Your task to perform on an android device: Open Yahoo.com Image 0: 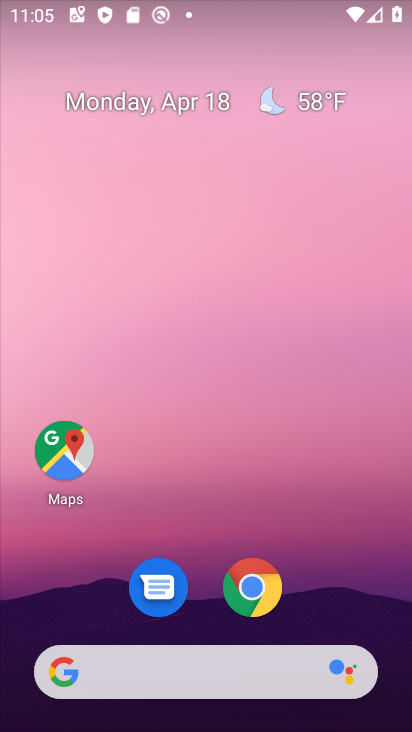
Step 0: click (249, 586)
Your task to perform on an android device: Open Yahoo.com Image 1: 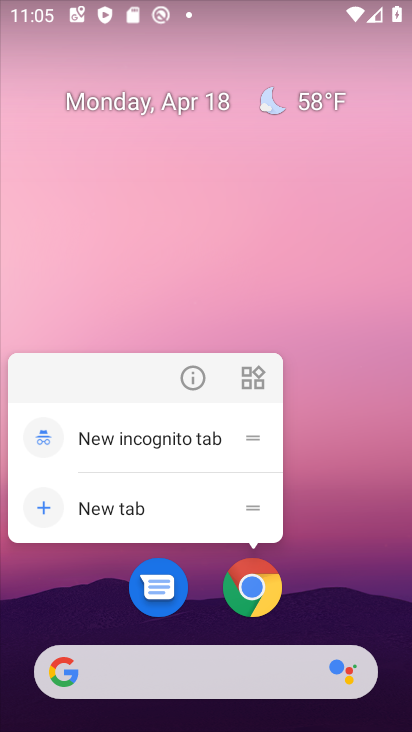
Step 1: click (249, 601)
Your task to perform on an android device: Open Yahoo.com Image 2: 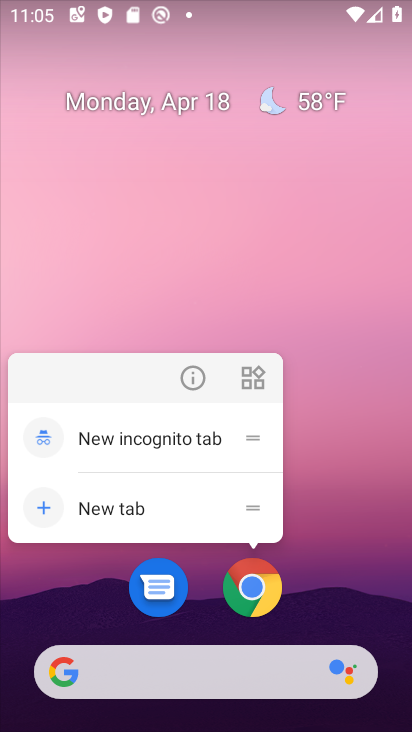
Step 2: click (249, 599)
Your task to perform on an android device: Open Yahoo.com Image 3: 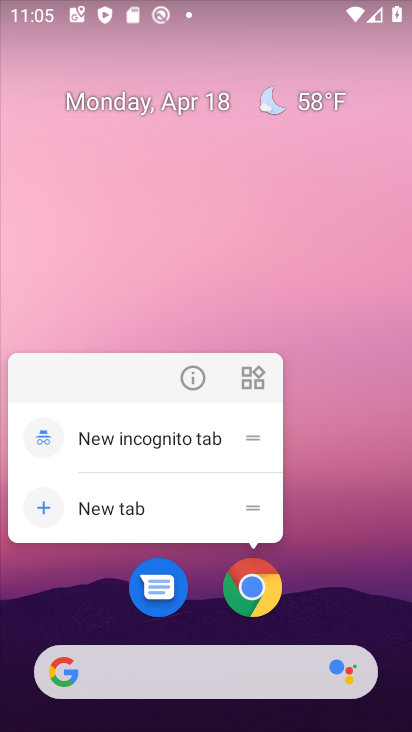
Step 3: click (266, 596)
Your task to perform on an android device: Open Yahoo.com Image 4: 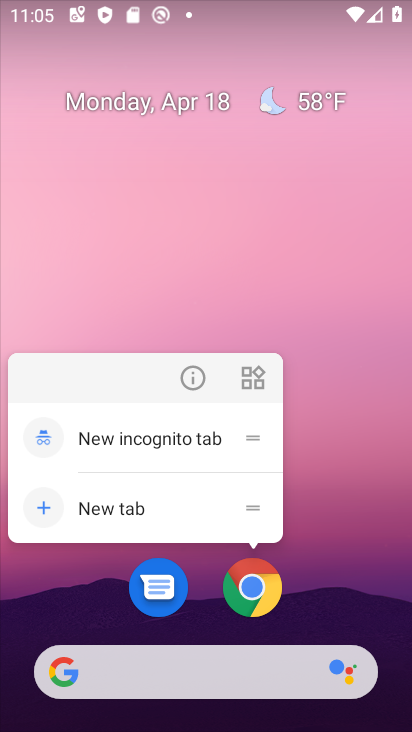
Step 4: click (263, 596)
Your task to perform on an android device: Open Yahoo.com Image 5: 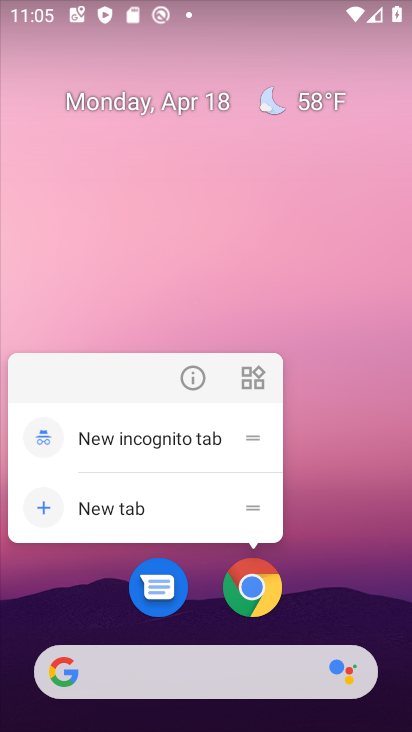
Step 5: click (263, 596)
Your task to perform on an android device: Open Yahoo.com Image 6: 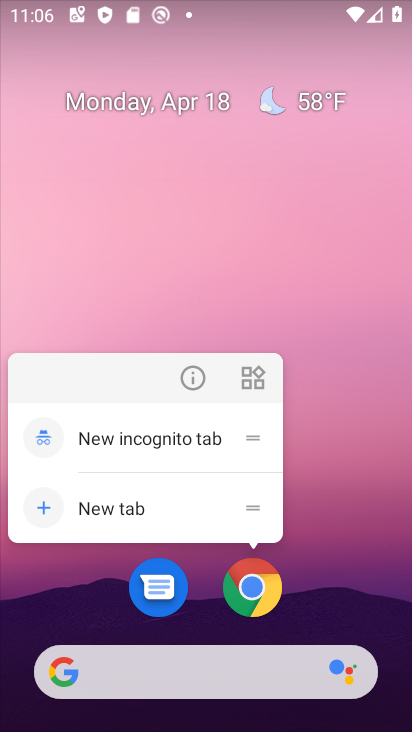
Step 6: click (255, 580)
Your task to perform on an android device: Open Yahoo.com Image 7: 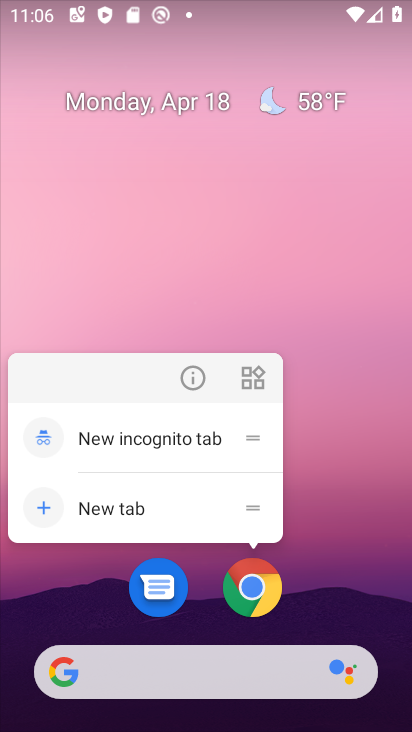
Step 7: click (256, 562)
Your task to perform on an android device: Open Yahoo.com Image 8: 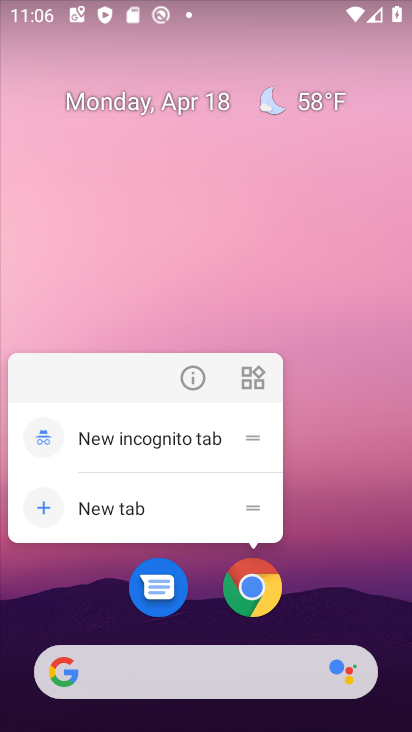
Step 8: click (233, 588)
Your task to perform on an android device: Open Yahoo.com Image 9: 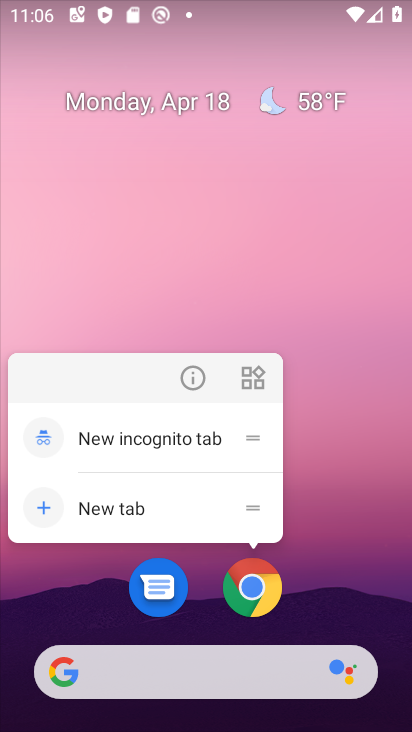
Step 9: click (258, 615)
Your task to perform on an android device: Open Yahoo.com Image 10: 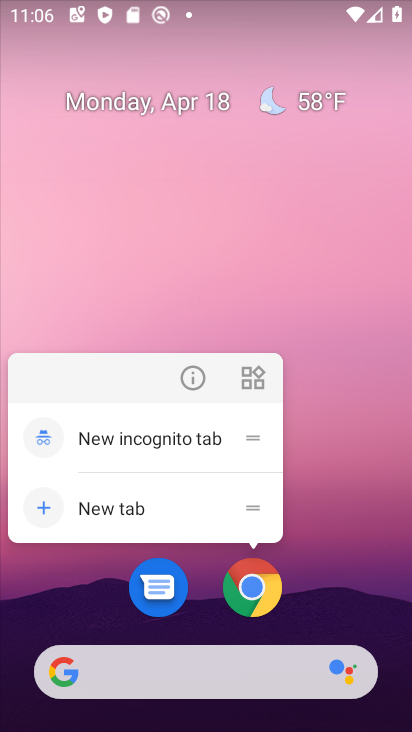
Step 10: click (288, 600)
Your task to perform on an android device: Open Yahoo.com Image 11: 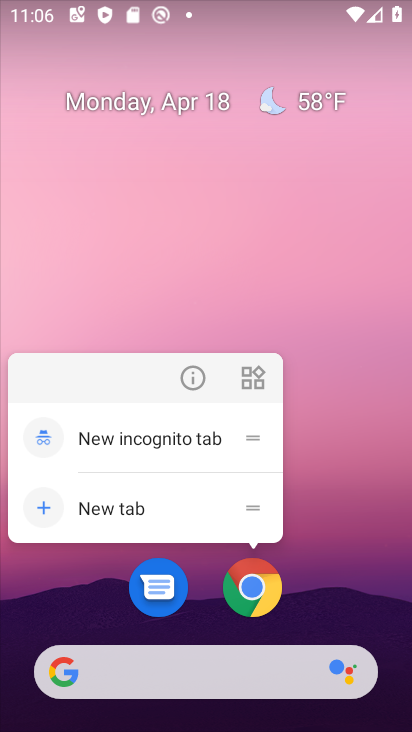
Step 11: click (278, 599)
Your task to perform on an android device: Open Yahoo.com Image 12: 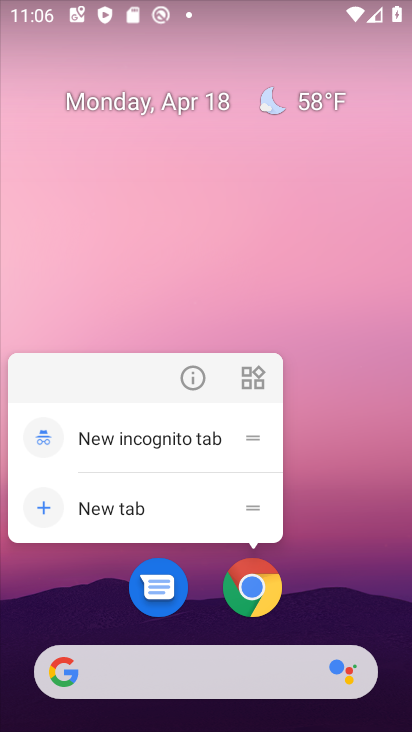
Step 12: click (276, 599)
Your task to perform on an android device: Open Yahoo.com Image 13: 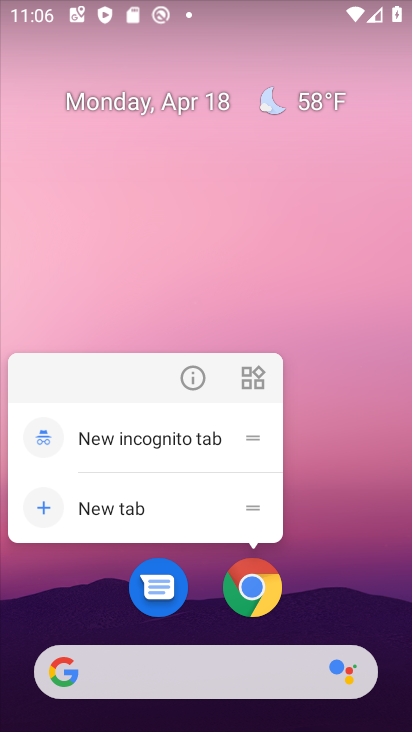
Step 13: click (276, 599)
Your task to perform on an android device: Open Yahoo.com Image 14: 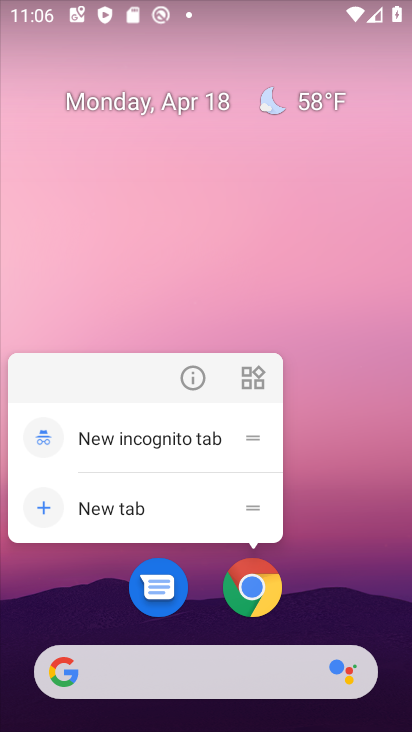
Step 14: click (264, 582)
Your task to perform on an android device: Open Yahoo.com Image 15: 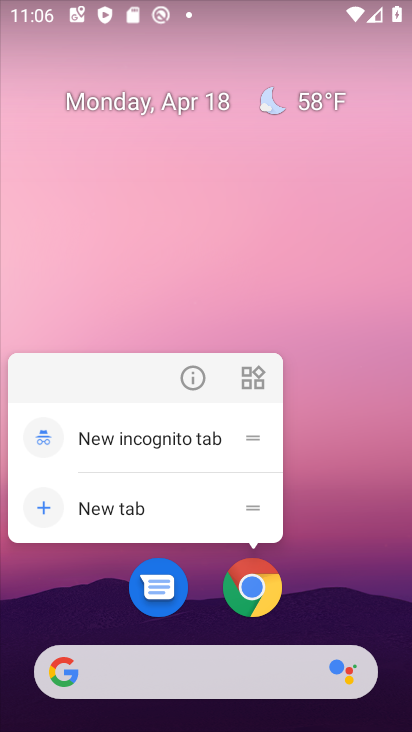
Step 15: click (264, 582)
Your task to perform on an android device: Open Yahoo.com Image 16: 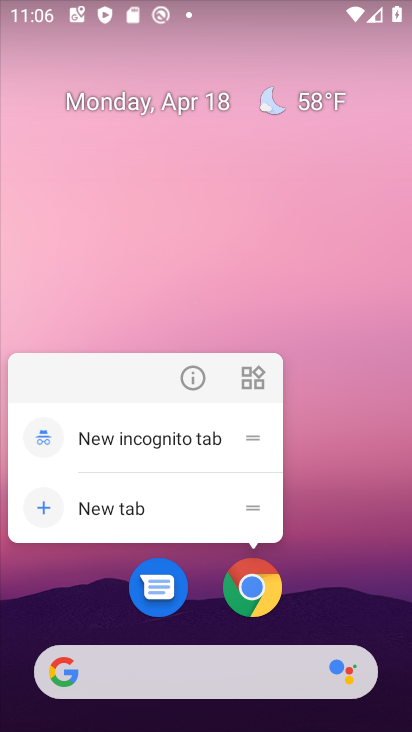
Step 16: click (260, 585)
Your task to perform on an android device: Open Yahoo.com Image 17: 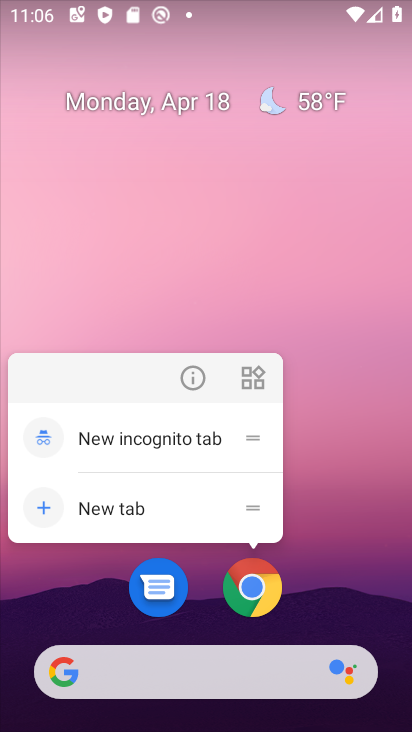
Step 17: click (265, 585)
Your task to perform on an android device: Open Yahoo.com Image 18: 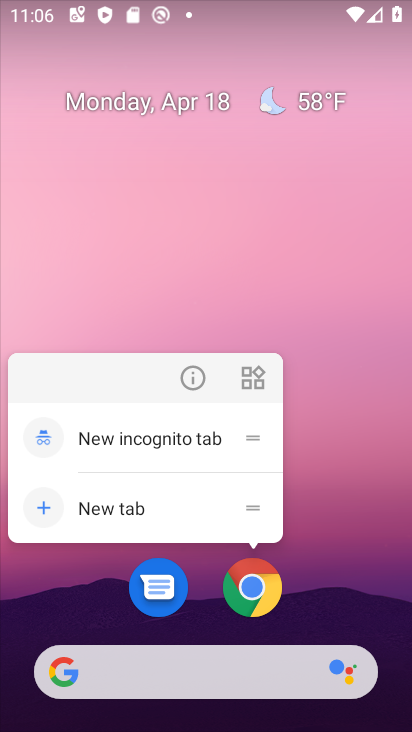
Step 18: click (279, 593)
Your task to perform on an android device: Open Yahoo.com Image 19: 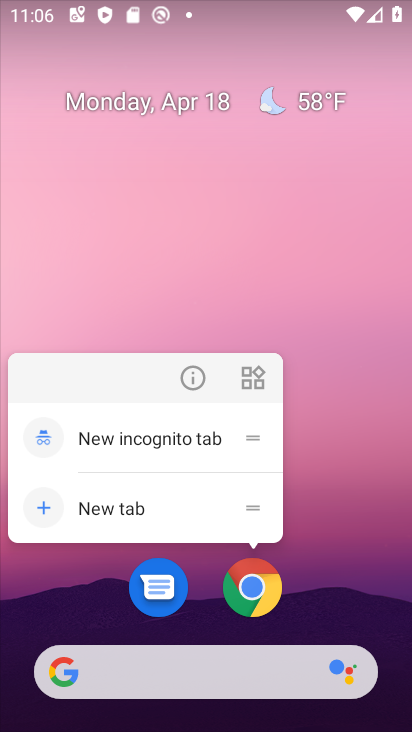
Step 19: click (269, 579)
Your task to perform on an android device: Open Yahoo.com Image 20: 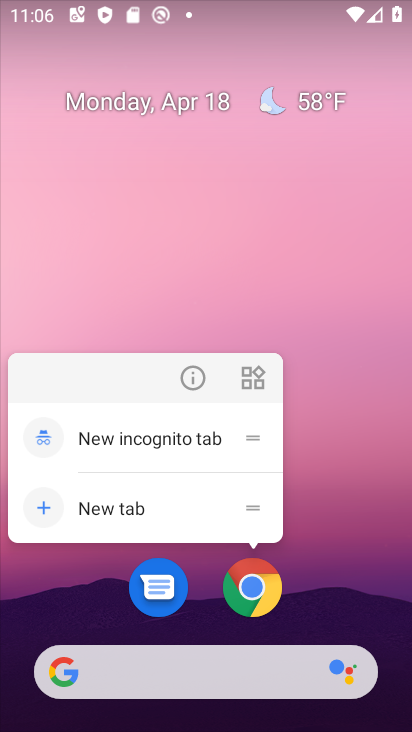
Step 20: click (263, 597)
Your task to perform on an android device: Open Yahoo.com Image 21: 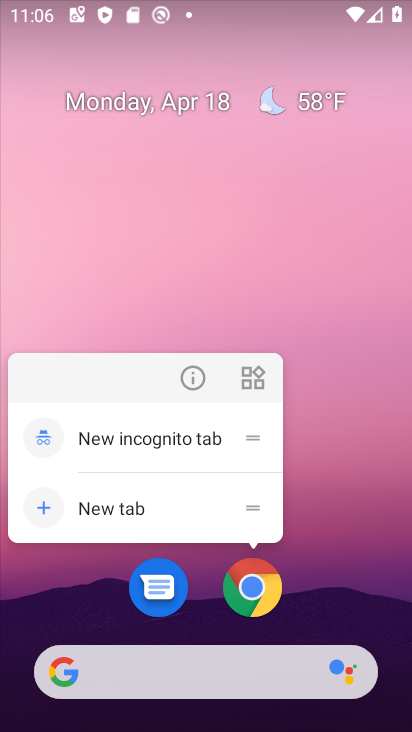
Step 21: click (261, 598)
Your task to perform on an android device: Open Yahoo.com Image 22: 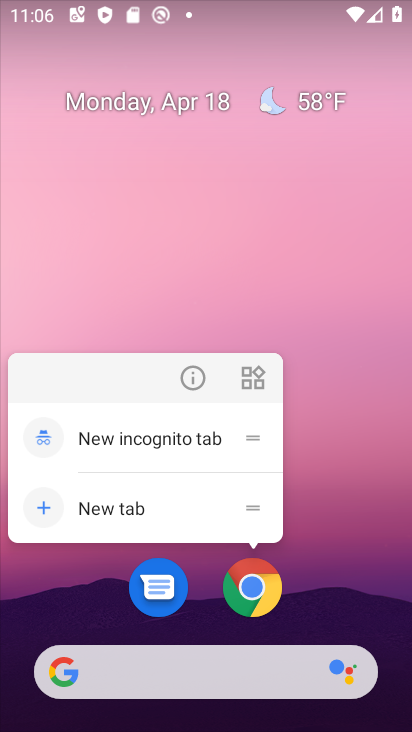
Step 22: click (249, 605)
Your task to perform on an android device: Open Yahoo.com Image 23: 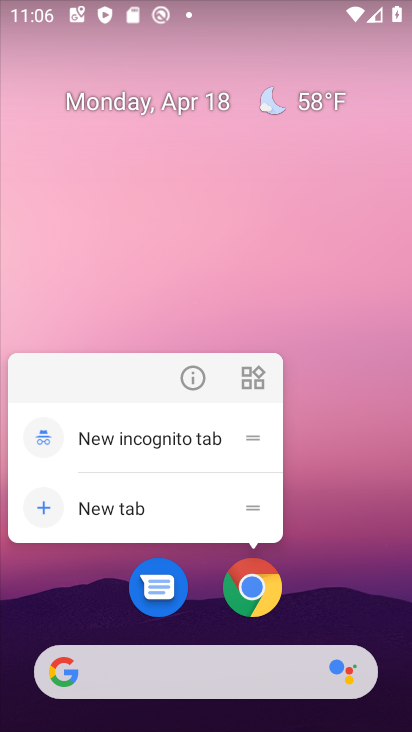
Step 23: click (268, 596)
Your task to perform on an android device: Open Yahoo.com Image 24: 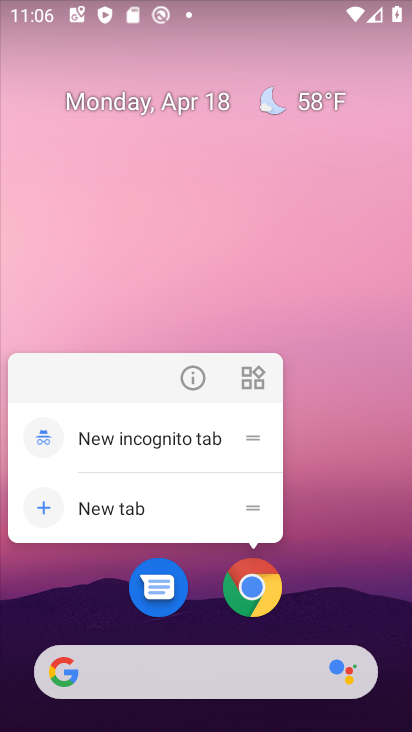
Step 24: click (278, 576)
Your task to perform on an android device: Open Yahoo.com Image 25: 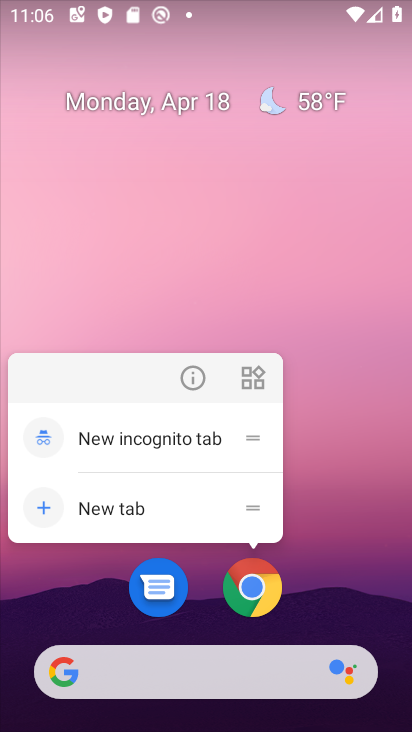
Step 25: click (252, 564)
Your task to perform on an android device: Open Yahoo.com Image 26: 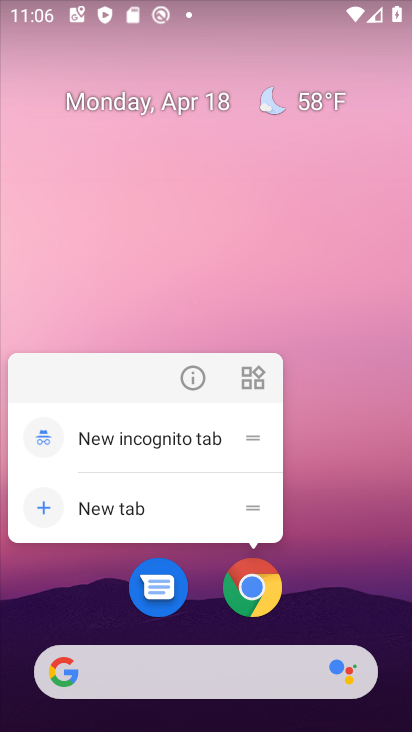
Step 26: click (244, 581)
Your task to perform on an android device: Open Yahoo.com Image 27: 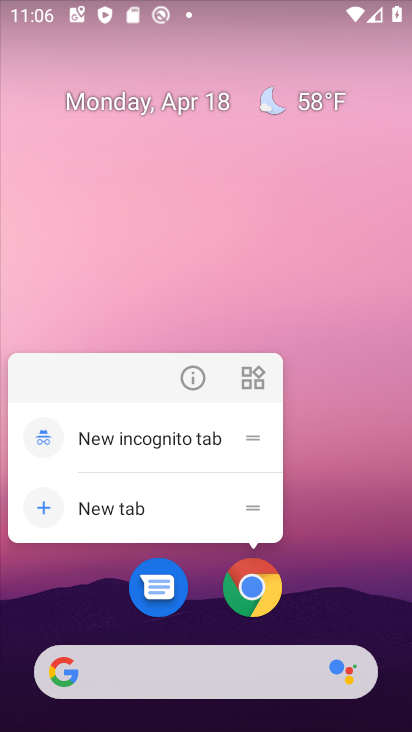
Step 27: click (243, 593)
Your task to perform on an android device: Open Yahoo.com Image 28: 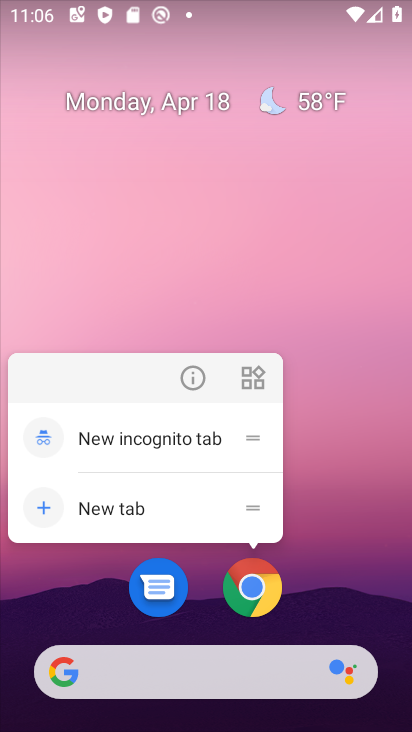
Step 28: click (243, 593)
Your task to perform on an android device: Open Yahoo.com Image 29: 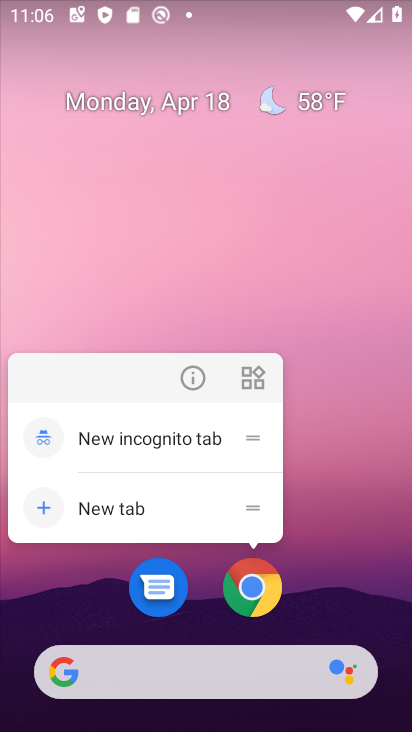
Step 29: click (250, 600)
Your task to perform on an android device: Open Yahoo.com Image 30: 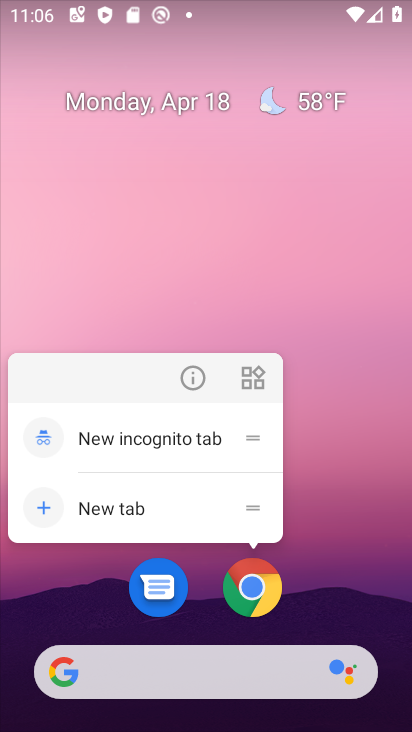
Step 30: click (251, 596)
Your task to perform on an android device: Open Yahoo.com Image 31: 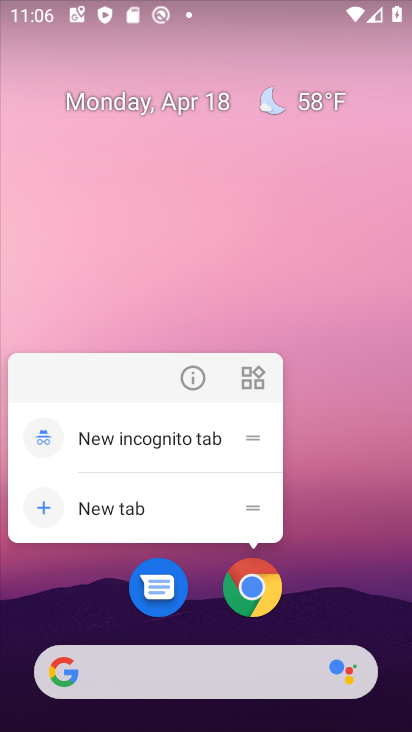
Step 31: click (251, 594)
Your task to perform on an android device: Open Yahoo.com Image 32: 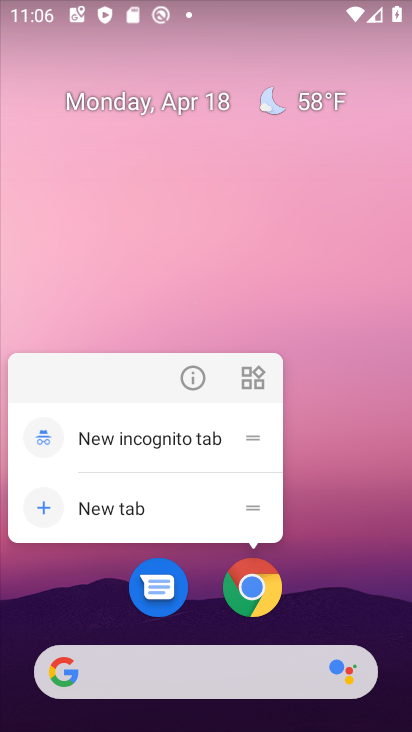
Step 32: click (251, 590)
Your task to perform on an android device: Open Yahoo.com Image 33: 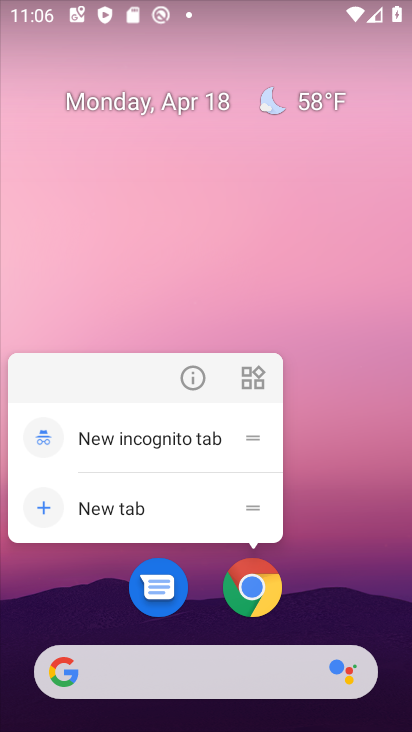
Step 33: click (266, 591)
Your task to perform on an android device: Open Yahoo.com Image 34: 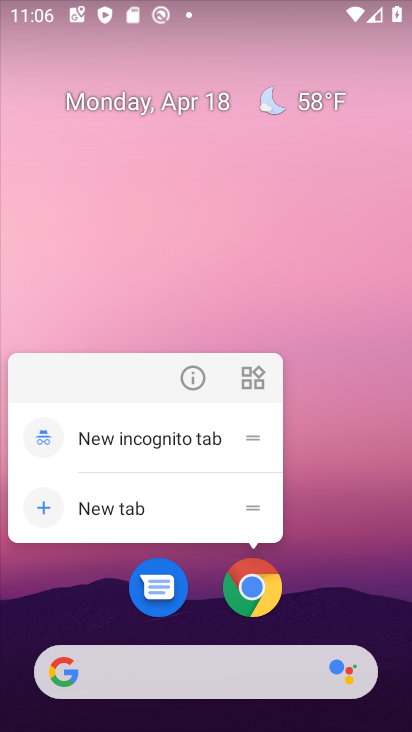
Step 34: click (258, 587)
Your task to perform on an android device: Open Yahoo.com Image 35: 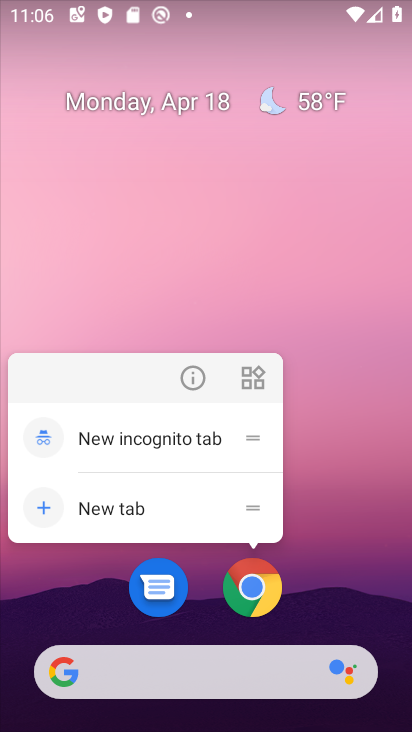
Step 35: click (257, 584)
Your task to perform on an android device: Open Yahoo.com Image 36: 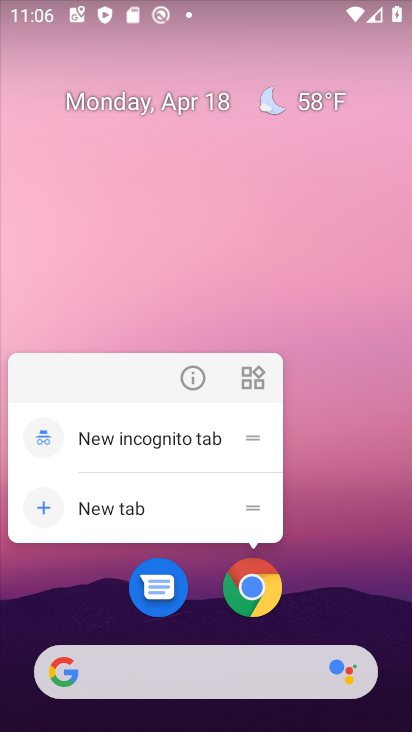
Step 36: click (253, 596)
Your task to perform on an android device: Open Yahoo.com Image 37: 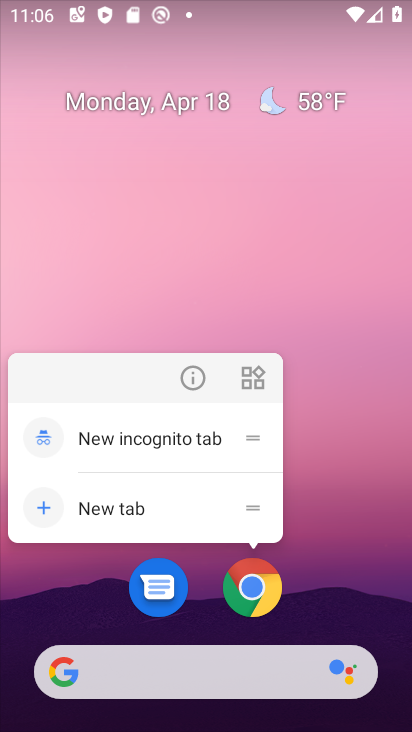
Step 37: click (257, 595)
Your task to perform on an android device: Open Yahoo.com Image 38: 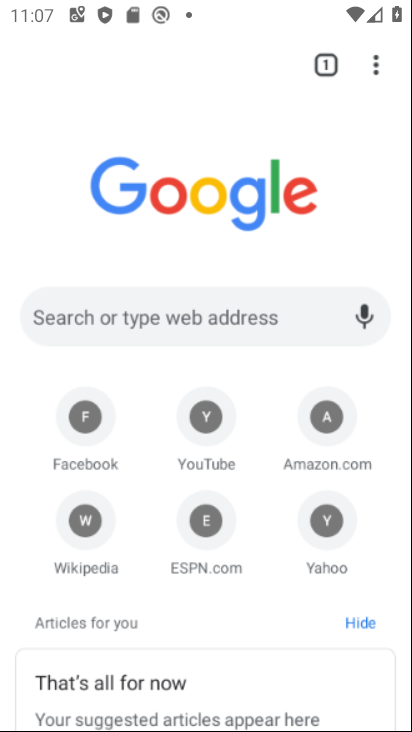
Step 38: click (257, 594)
Your task to perform on an android device: Open Yahoo.com Image 39: 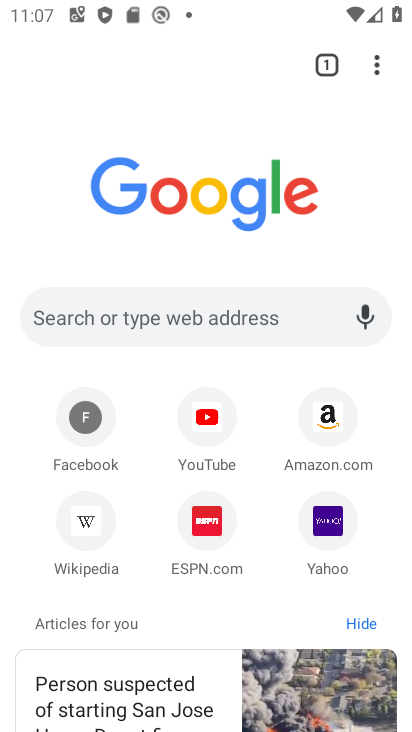
Step 39: click (342, 514)
Your task to perform on an android device: Open Yahoo.com Image 40: 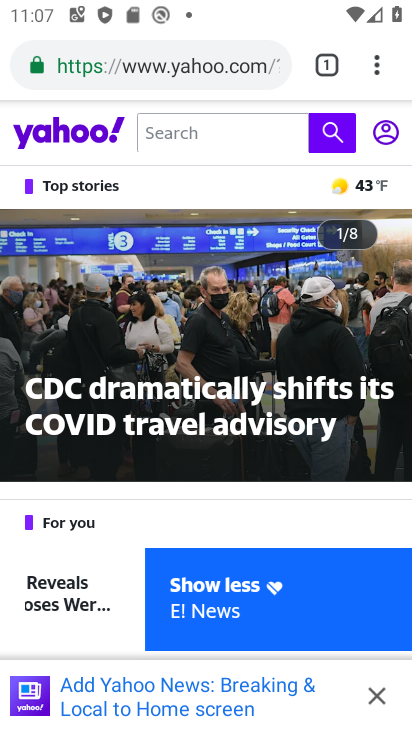
Step 40: task complete